Your task to perform on an android device: change the clock style Image 0: 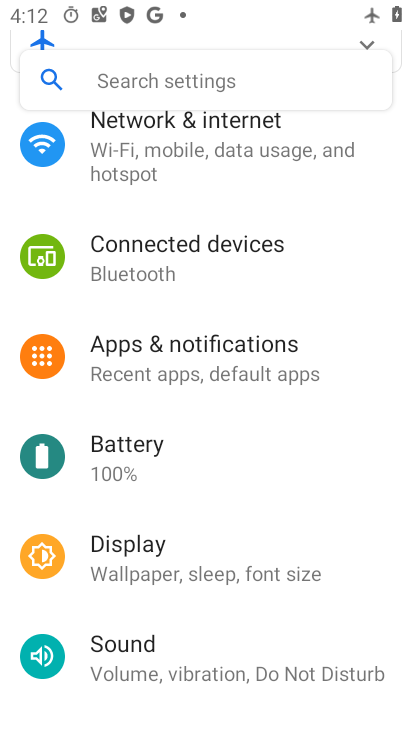
Step 0: press home button
Your task to perform on an android device: change the clock style Image 1: 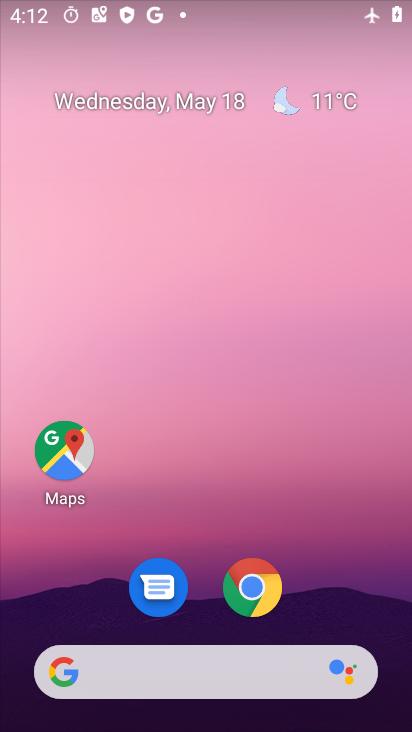
Step 1: drag from (167, 642) to (281, 144)
Your task to perform on an android device: change the clock style Image 2: 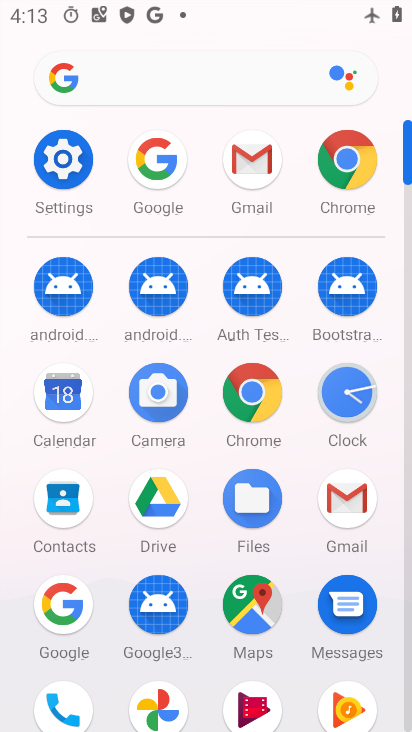
Step 2: click (341, 417)
Your task to perform on an android device: change the clock style Image 3: 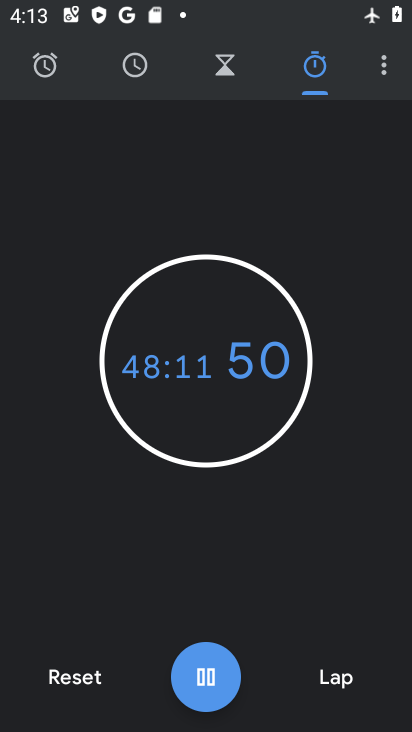
Step 3: click (391, 68)
Your task to perform on an android device: change the clock style Image 4: 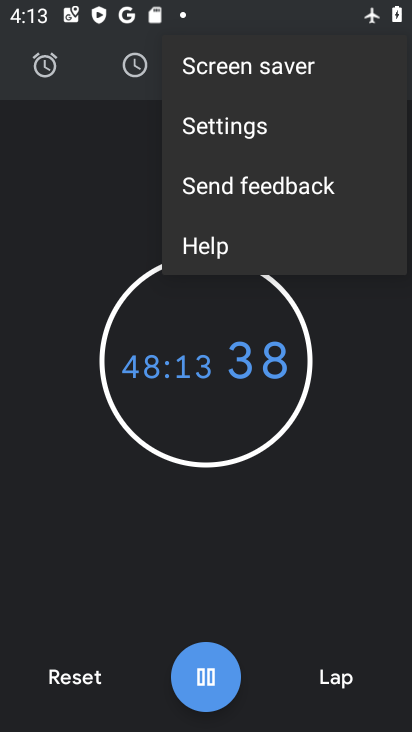
Step 4: click (264, 132)
Your task to perform on an android device: change the clock style Image 5: 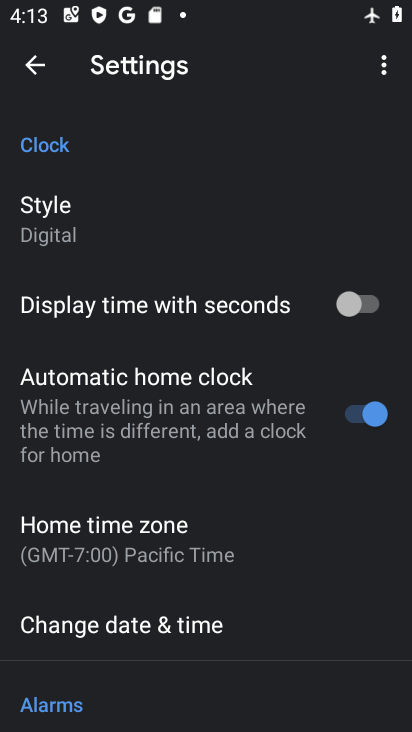
Step 5: click (164, 241)
Your task to perform on an android device: change the clock style Image 6: 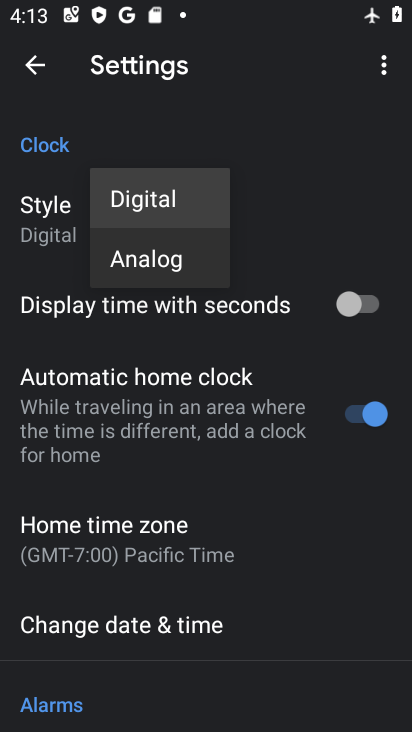
Step 6: click (178, 267)
Your task to perform on an android device: change the clock style Image 7: 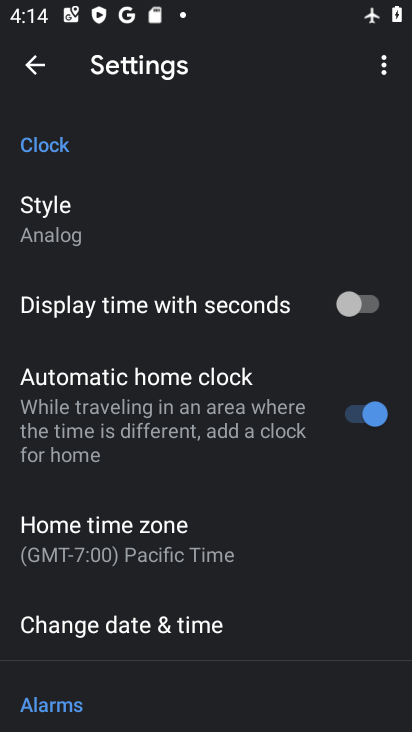
Step 7: task complete